Your task to perform on an android device: Check the news Image 0: 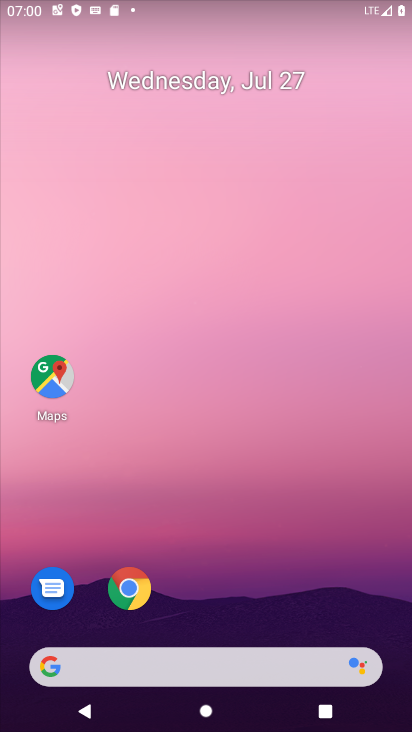
Step 0: drag from (201, 668) to (213, 16)
Your task to perform on an android device: Check the news Image 1: 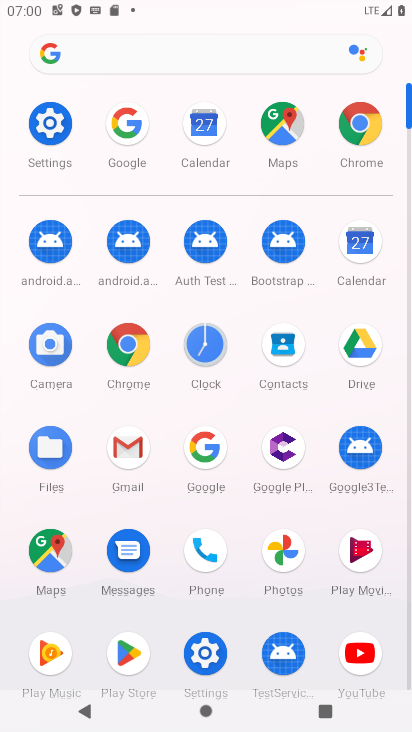
Step 1: click (137, 344)
Your task to perform on an android device: Check the news Image 2: 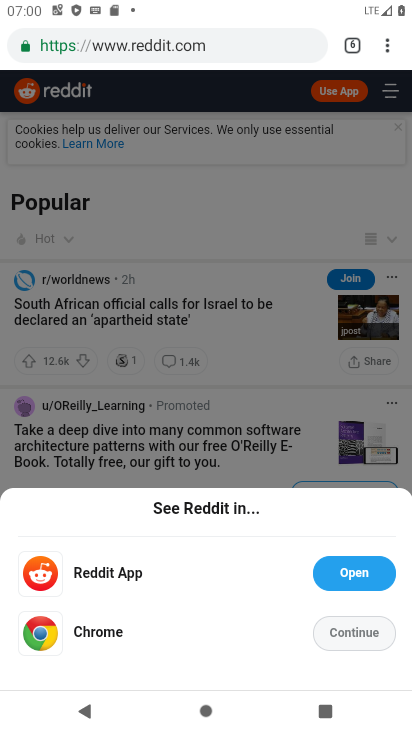
Step 2: click (275, 39)
Your task to perform on an android device: Check the news Image 3: 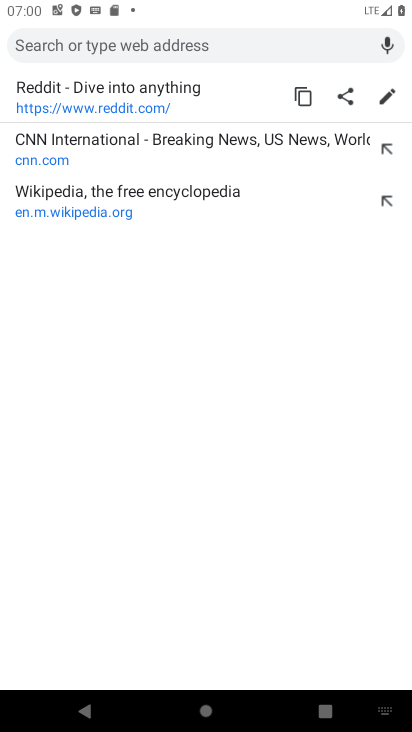
Step 3: type "check the news"
Your task to perform on an android device: Check the news Image 4: 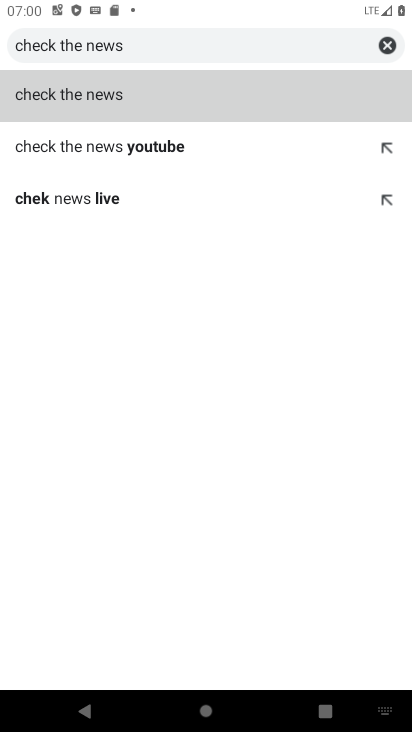
Step 4: click (201, 88)
Your task to perform on an android device: Check the news Image 5: 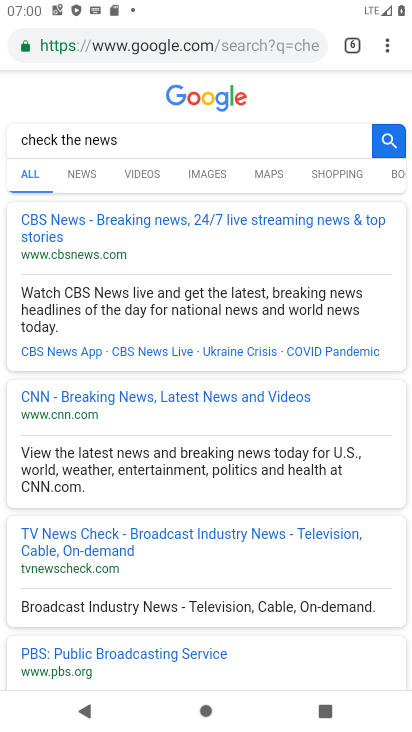
Step 5: task complete